Your task to perform on an android device: Open Youtube and go to "Your channel" Image 0: 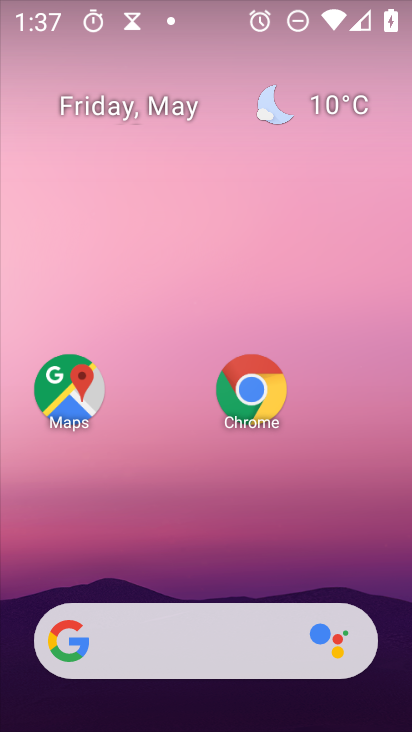
Step 0: press home button
Your task to perform on an android device: Open Youtube and go to "Your channel" Image 1: 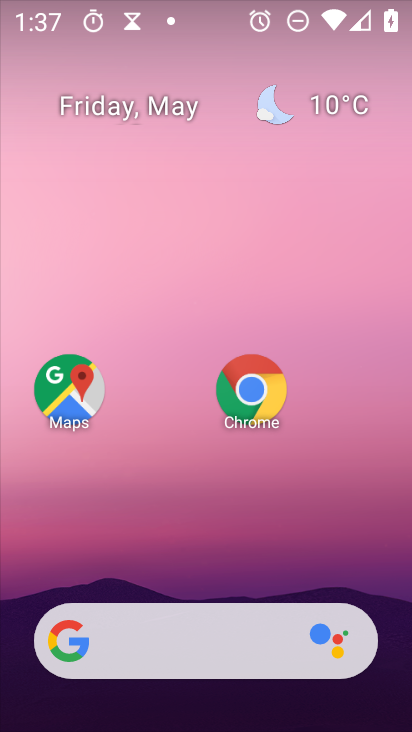
Step 1: drag from (129, 634) to (330, 90)
Your task to perform on an android device: Open Youtube and go to "Your channel" Image 2: 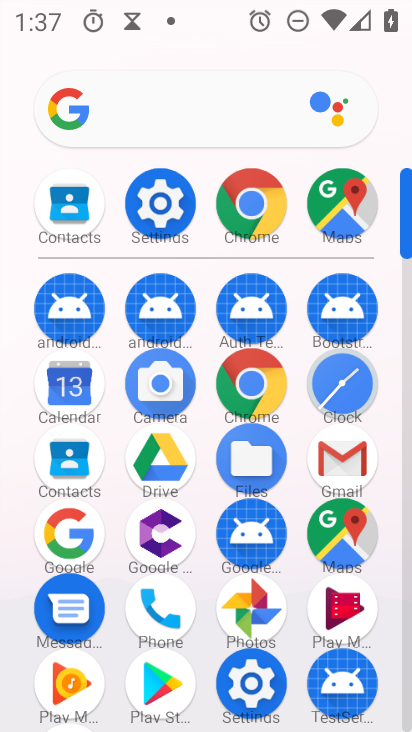
Step 2: drag from (204, 650) to (332, 183)
Your task to perform on an android device: Open Youtube and go to "Your channel" Image 3: 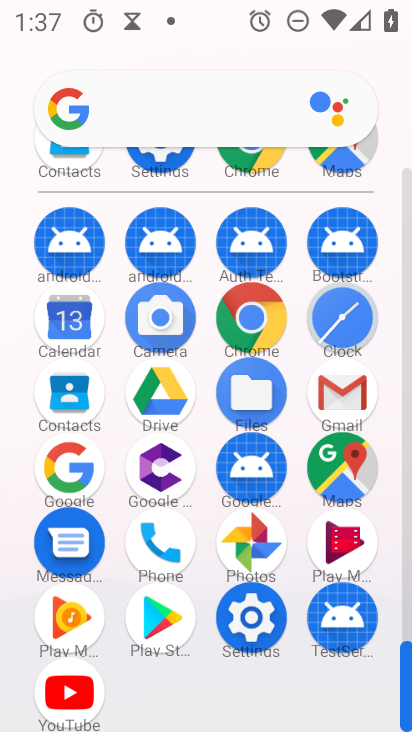
Step 3: click (70, 689)
Your task to perform on an android device: Open Youtube and go to "Your channel" Image 4: 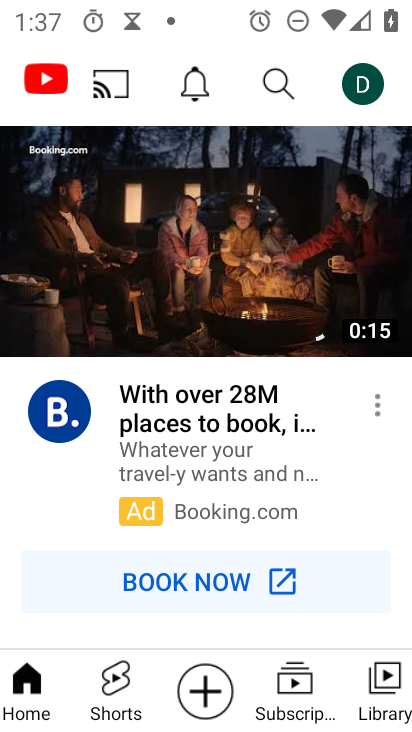
Step 4: click (368, 87)
Your task to perform on an android device: Open Youtube and go to "Your channel" Image 5: 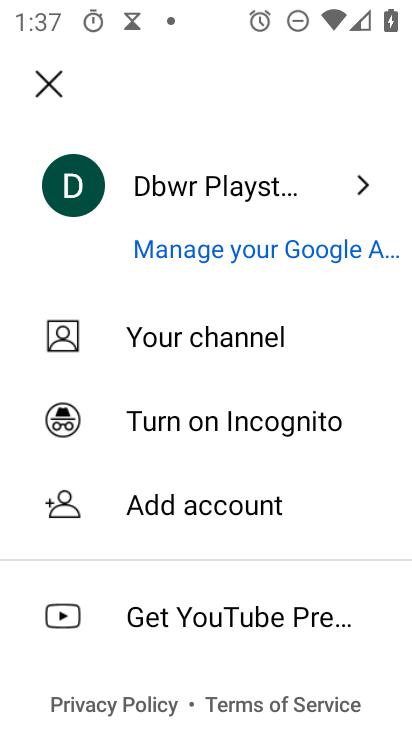
Step 5: click (223, 326)
Your task to perform on an android device: Open Youtube and go to "Your channel" Image 6: 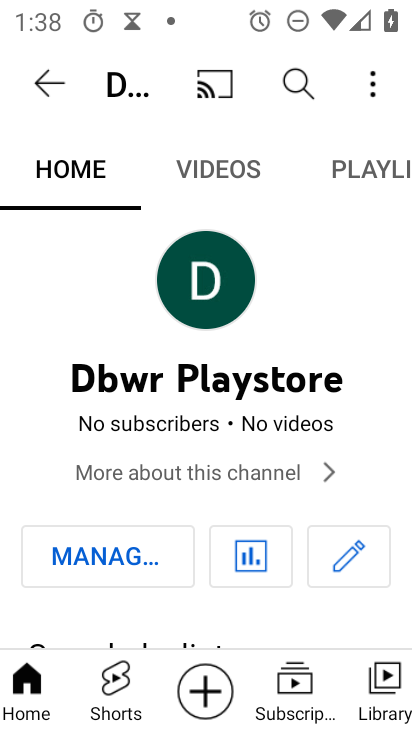
Step 6: task complete